Your task to perform on an android device: change notifications settings Image 0: 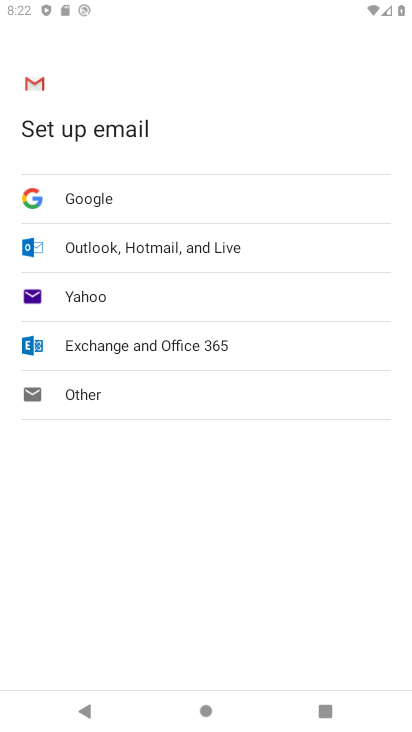
Step 0: press home button
Your task to perform on an android device: change notifications settings Image 1: 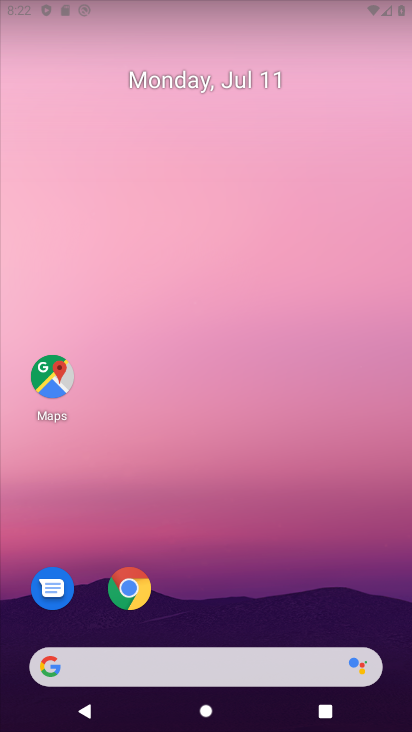
Step 1: drag from (127, 569) to (258, 8)
Your task to perform on an android device: change notifications settings Image 2: 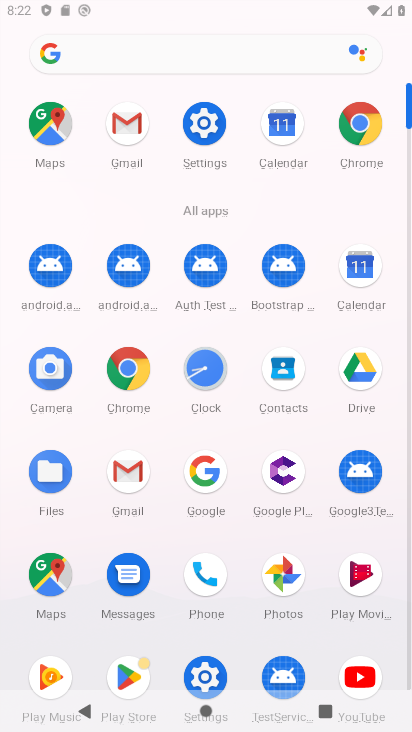
Step 2: click (203, 115)
Your task to perform on an android device: change notifications settings Image 3: 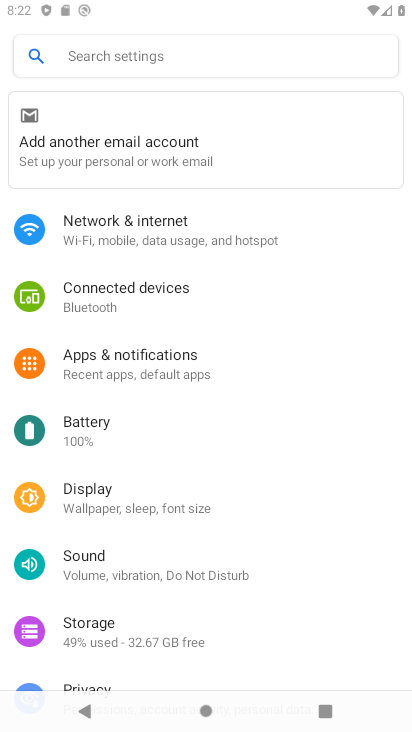
Step 3: click (140, 353)
Your task to perform on an android device: change notifications settings Image 4: 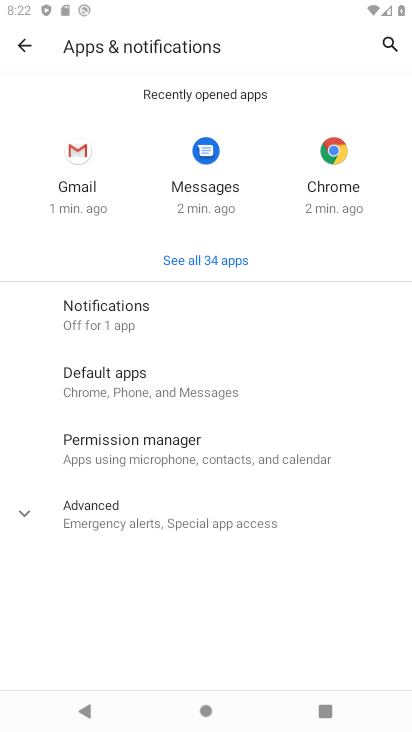
Step 4: click (99, 312)
Your task to perform on an android device: change notifications settings Image 5: 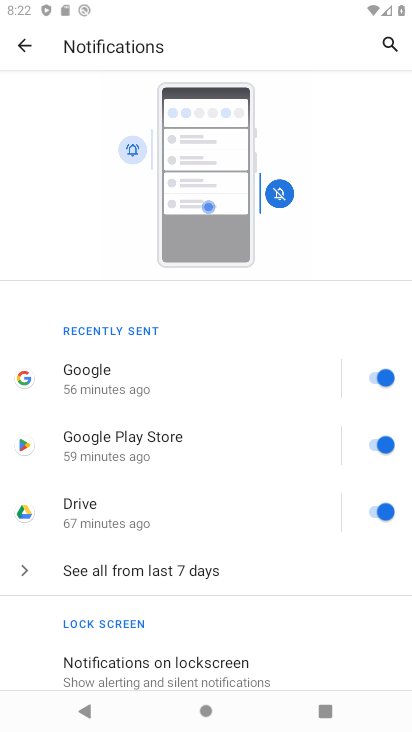
Step 5: click (389, 382)
Your task to perform on an android device: change notifications settings Image 6: 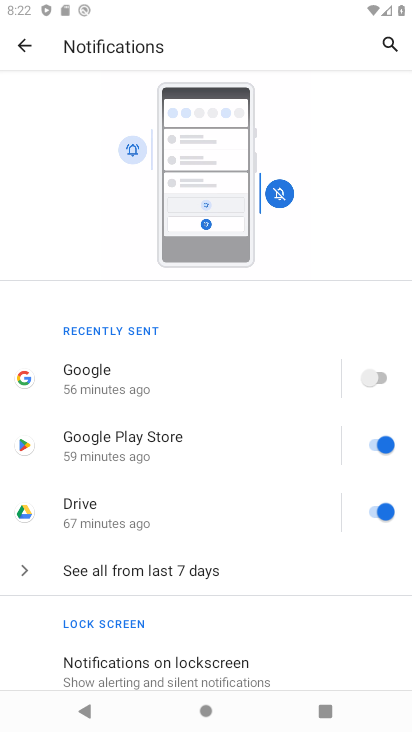
Step 6: task complete